Your task to perform on an android device: Open Reddit.com Image 0: 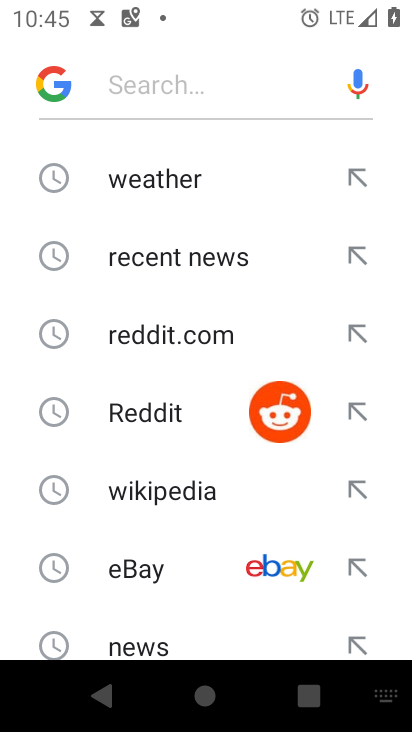
Step 0: press back button
Your task to perform on an android device: Open Reddit.com Image 1: 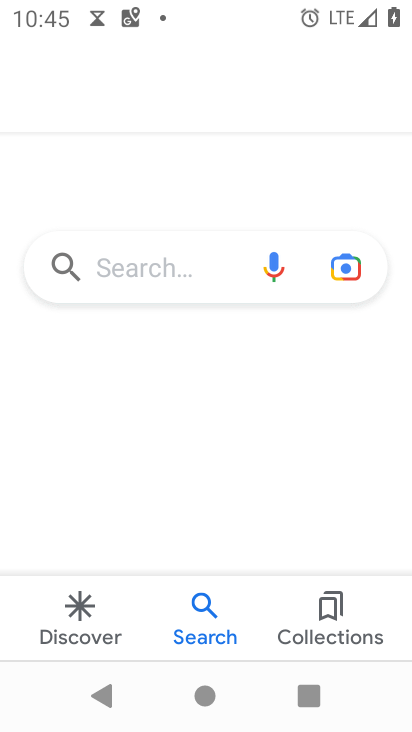
Step 1: press back button
Your task to perform on an android device: Open Reddit.com Image 2: 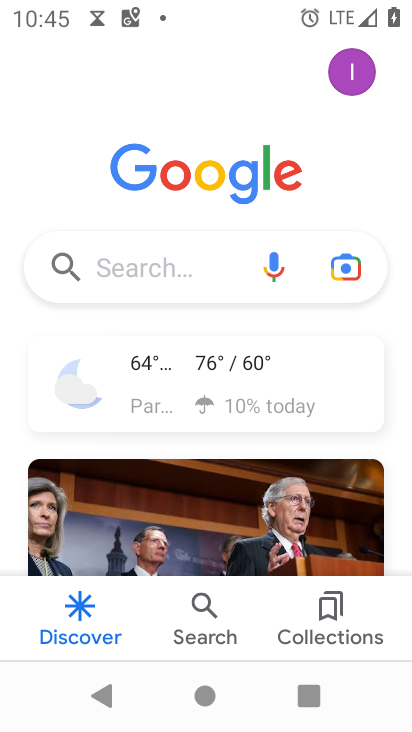
Step 2: click (152, 275)
Your task to perform on an android device: Open Reddit.com Image 3: 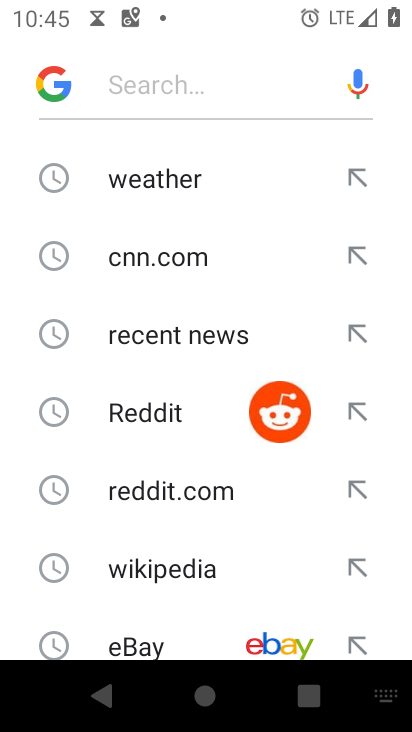
Step 3: type "Reddit.com"
Your task to perform on an android device: Open Reddit.com Image 4: 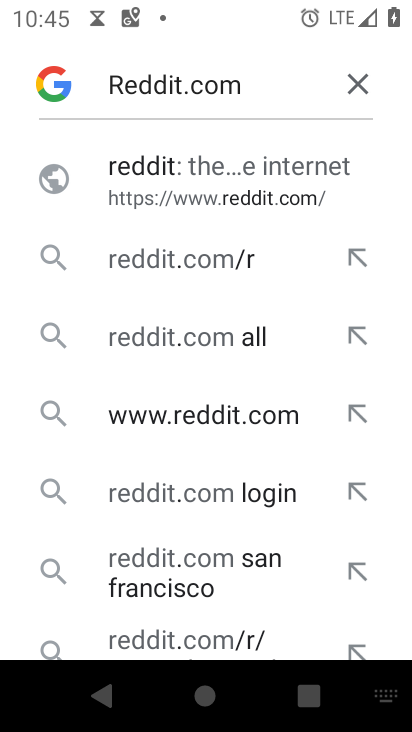
Step 4: click (125, 172)
Your task to perform on an android device: Open Reddit.com Image 5: 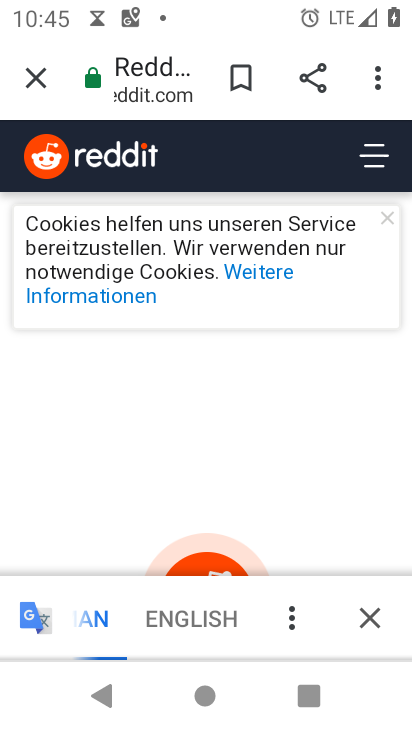
Step 5: task complete